Your task to perform on an android device: refresh tabs in the chrome app Image 0: 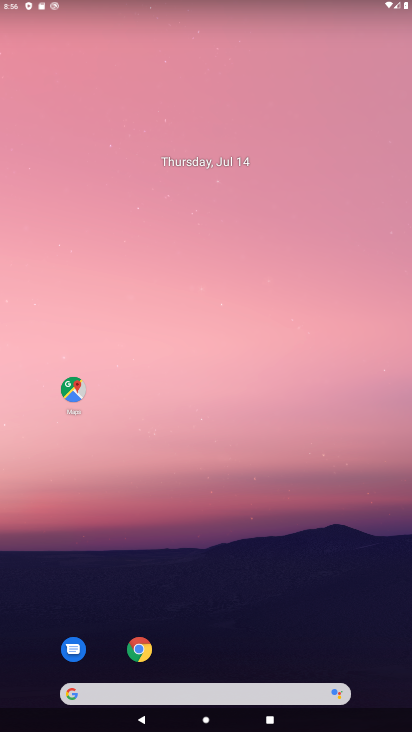
Step 0: click (130, 651)
Your task to perform on an android device: refresh tabs in the chrome app Image 1: 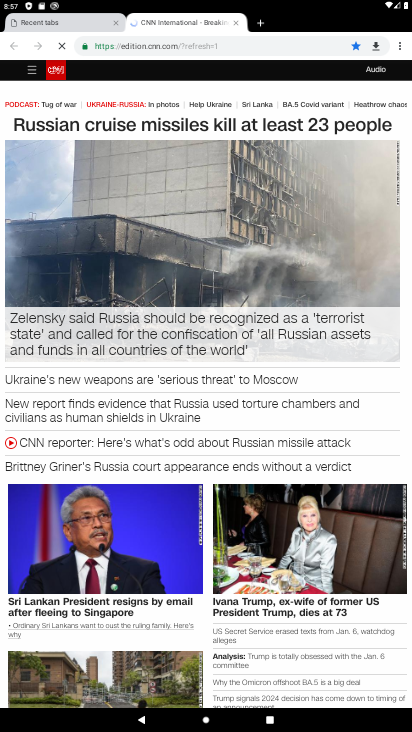
Step 1: click (60, 46)
Your task to perform on an android device: refresh tabs in the chrome app Image 2: 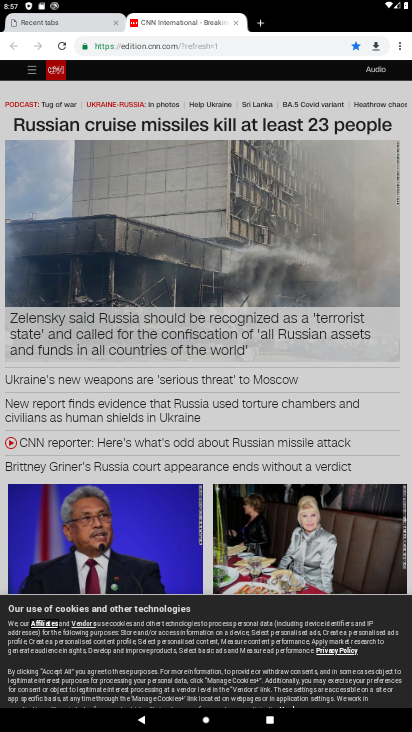
Step 2: click (66, 48)
Your task to perform on an android device: refresh tabs in the chrome app Image 3: 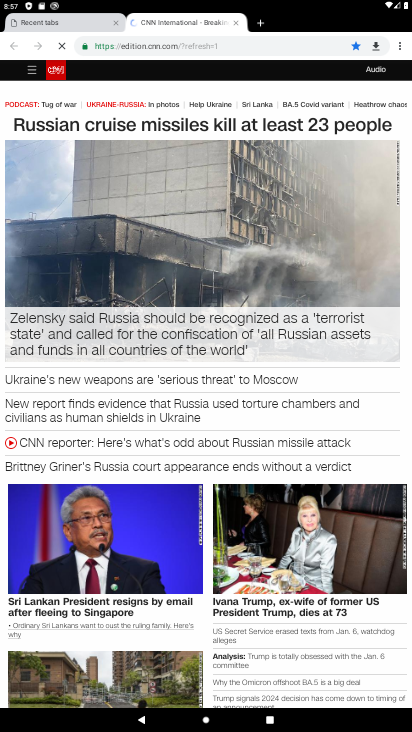
Step 3: task complete